Your task to perform on an android device: turn off smart reply in the gmail app Image 0: 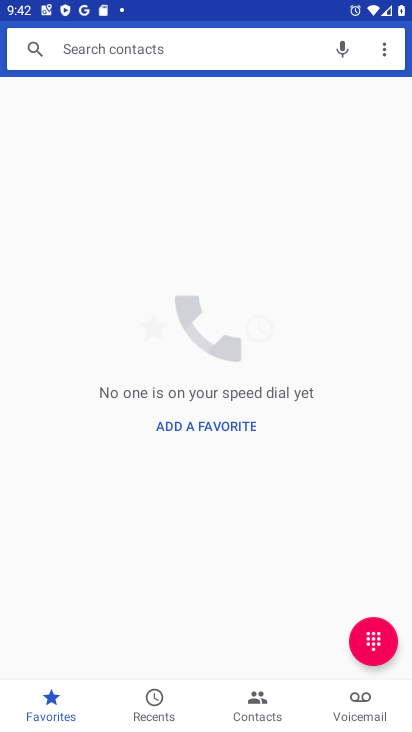
Step 0: press home button
Your task to perform on an android device: turn off smart reply in the gmail app Image 1: 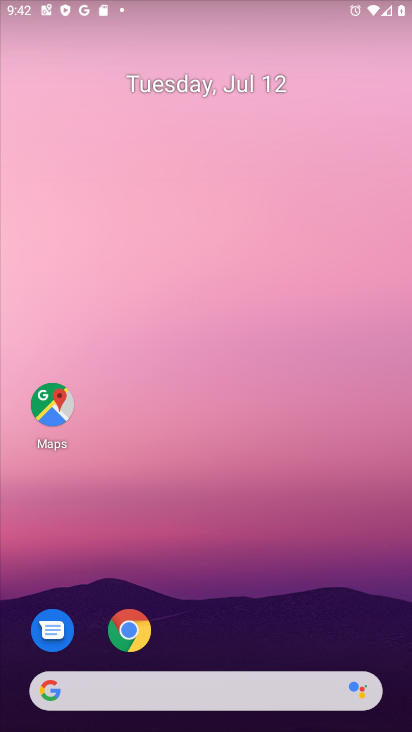
Step 1: drag from (242, 646) to (269, 224)
Your task to perform on an android device: turn off smart reply in the gmail app Image 2: 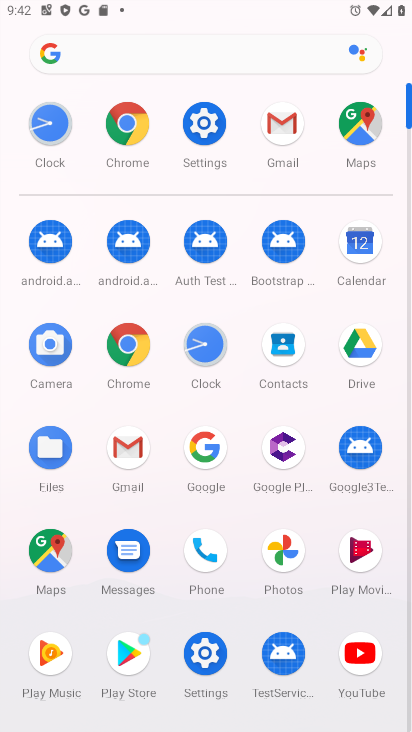
Step 2: click (285, 120)
Your task to perform on an android device: turn off smart reply in the gmail app Image 3: 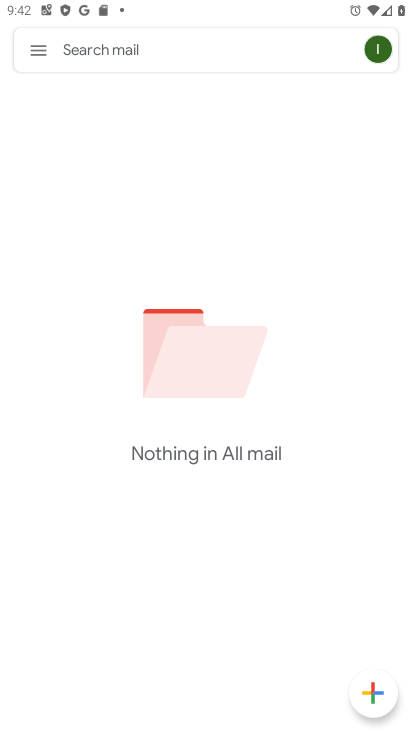
Step 3: click (40, 51)
Your task to perform on an android device: turn off smart reply in the gmail app Image 4: 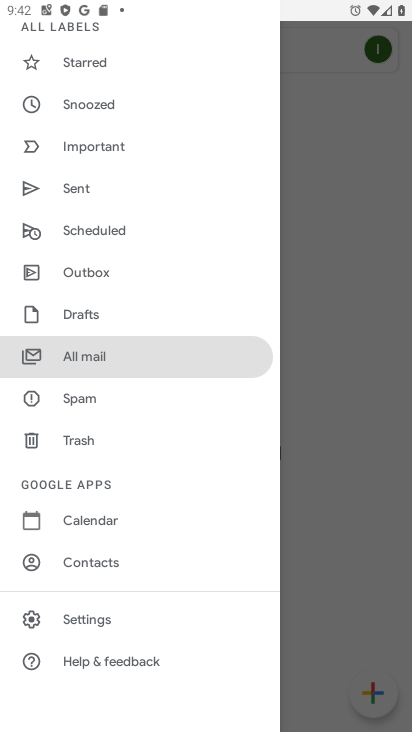
Step 4: click (86, 615)
Your task to perform on an android device: turn off smart reply in the gmail app Image 5: 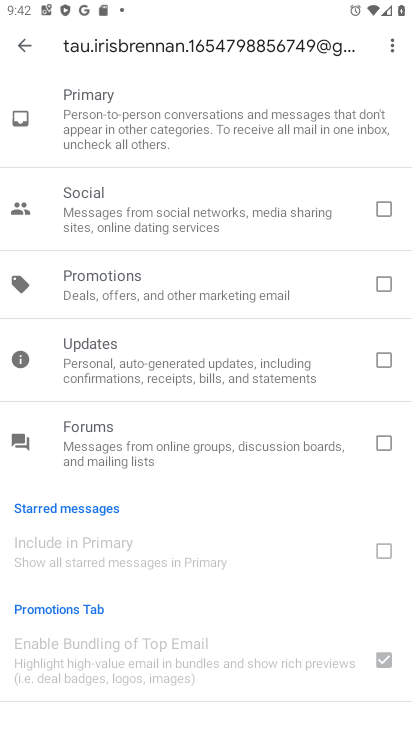
Step 5: drag from (154, 600) to (212, 534)
Your task to perform on an android device: turn off smart reply in the gmail app Image 6: 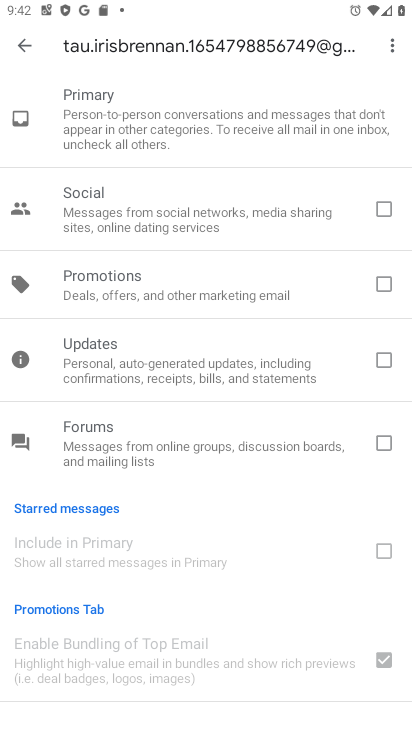
Step 6: press back button
Your task to perform on an android device: turn off smart reply in the gmail app Image 7: 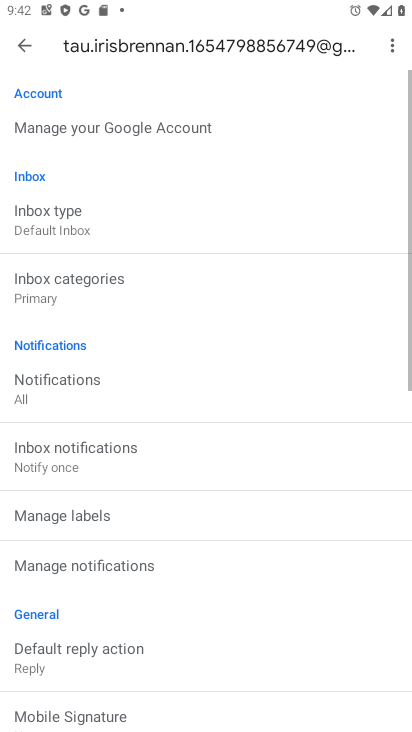
Step 7: drag from (107, 668) to (162, 176)
Your task to perform on an android device: turn off smart reply in the gmail app Image 8: 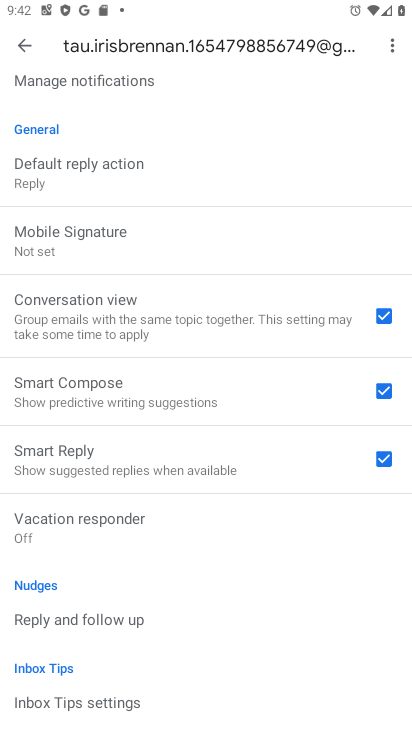
Step 8: click (383, 454)
Your task to perform on an android device: turn off smart reply in the gmail app Image 9: 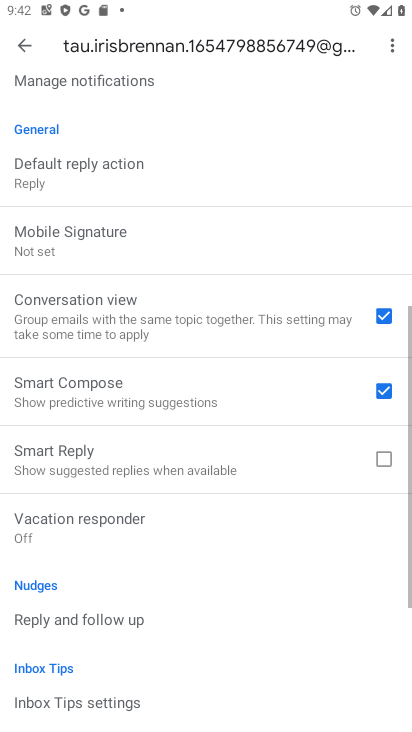
Step 9: task complete